Your task to perform on an android device: Open Amazon Image 0: 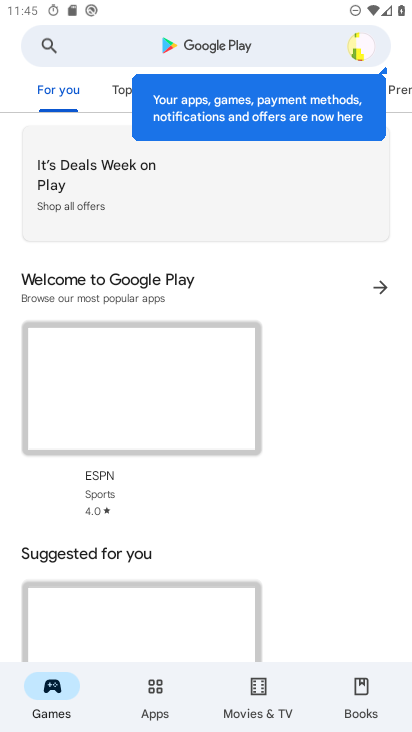
Step 0: press home button
Your task to perform on an android device: Open Amazon Image 1: 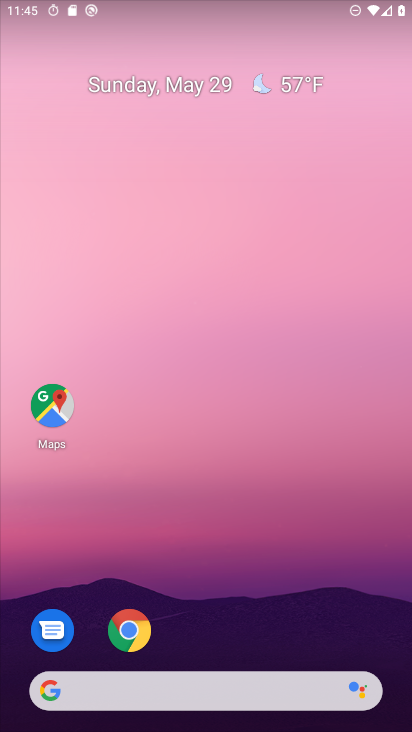
Step 1: drag from (284, 659) to (215, 186)
Your task to perform on an android device: Open Amazon Image 2: 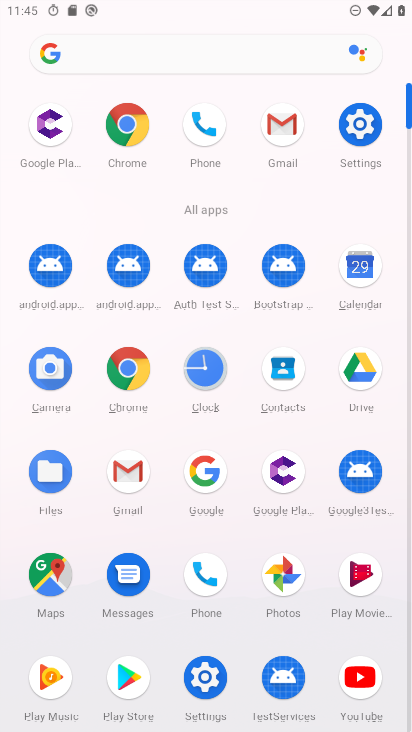
Step 2: click (124, 135)
Your task to perform on an android device: Open Amazon Image 3: 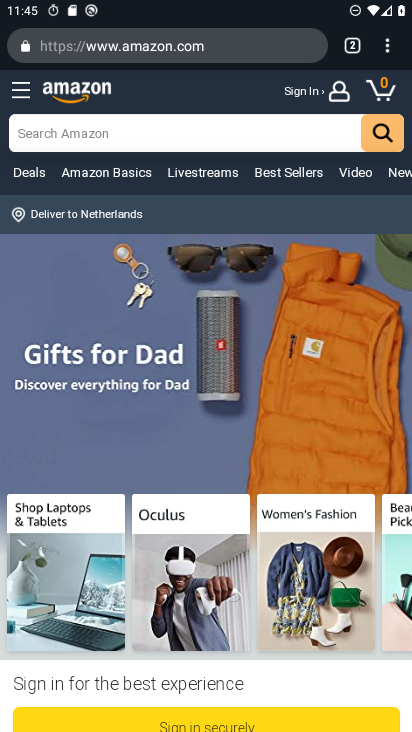
Step 3: task complete